Your task to perform on an android device: delete location history Image 0: 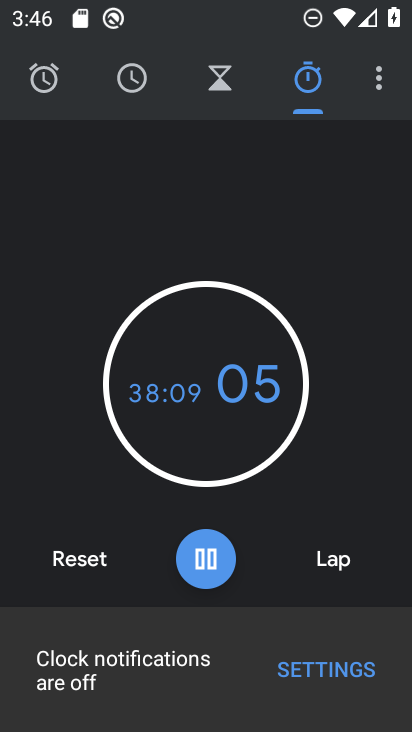
Step 0: press home button
Your task to perform on an android device: delete location history Image 1: 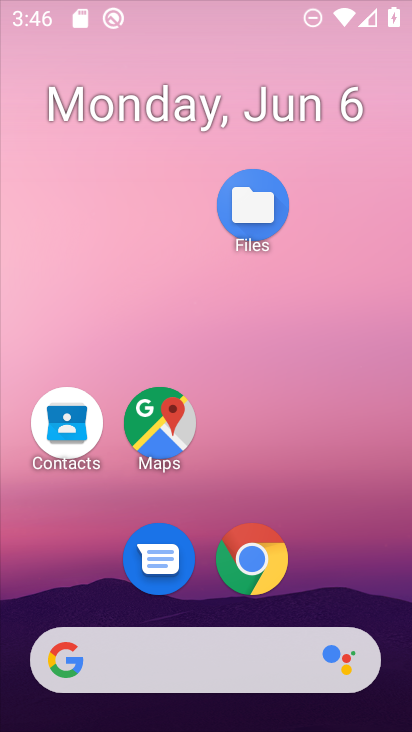
Step 1: drag from (299, 504) to (275, 43)
Your task to perform on an android device: delete location history Image 2: 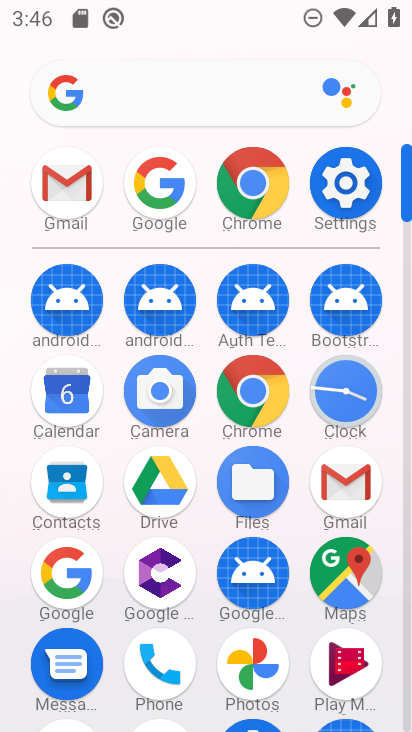
Step 2: click (362, 189)
Your task to perform on an android device: delete location history Image 3: 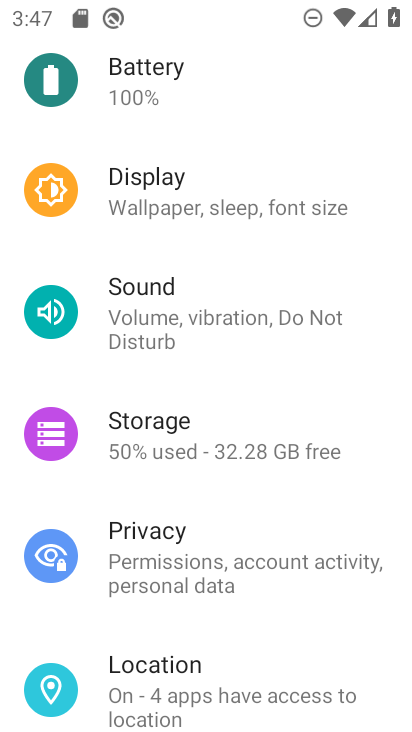
Step 3: click (217, 692)
Your task to perform on an android device: delete location history Image 4: 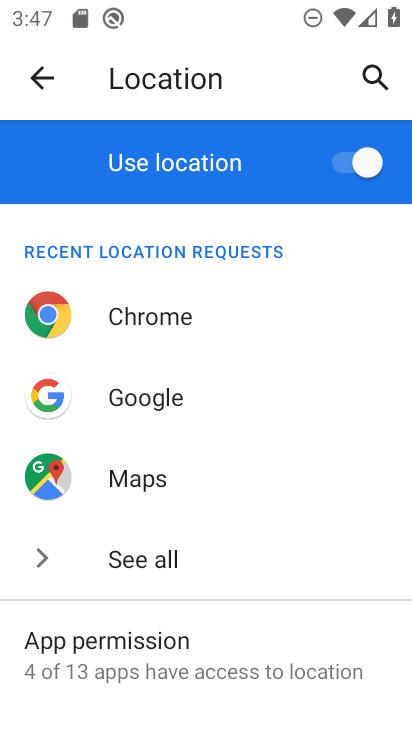
Step 4: drag from (123, 638) to (126, 157)
Your task to perform on an android device: delete location history Image 5: 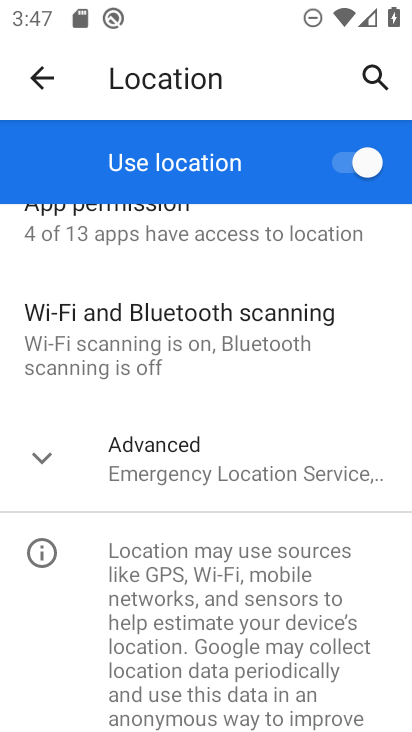
Step 5: click (203, 472)
Your task to perform on an android device: delete location history Image 6: 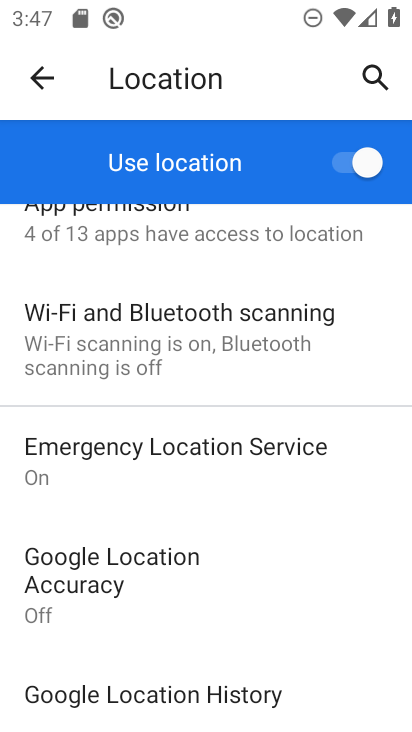
Step 6: click (191, 689)
Your task to perform on an android device: delete location history Image 7: 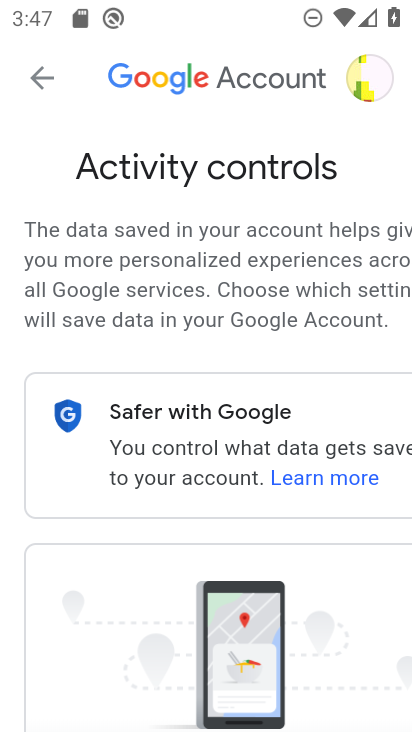
Step 7: drag from (243, 632) to (127, 304)
Your task to perform on an android device: delete location history Image 8: 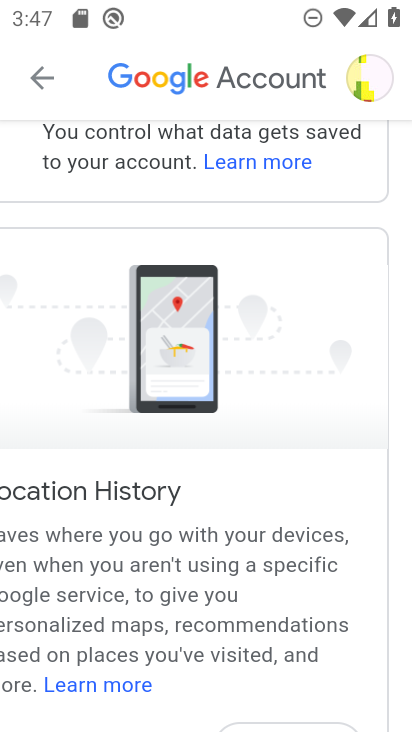
Step 8: drag from (267, 622) to (264, 254)
Your task to perform on an android device: delete location history Image 9: 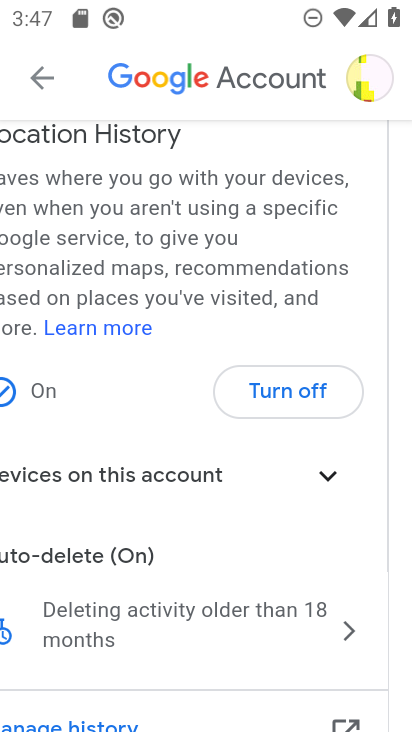
Step 9: click (159, 640)
Your task to perform on an android device: delete location history Image 10: 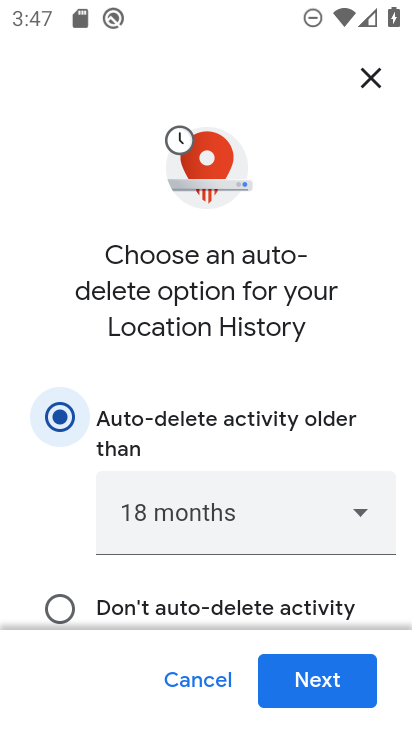
Step 10: click (325, 673)
Your task to perform on an android device: delete location history Image 11: 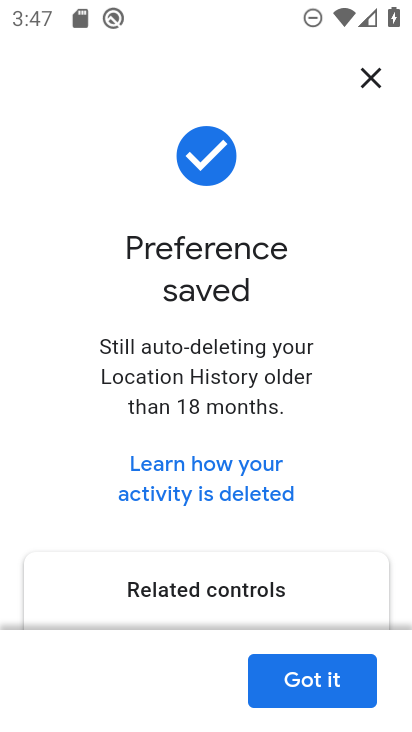
Step 11: click (323, 684)
Your task to perform on an android device: delete location history Image 12: 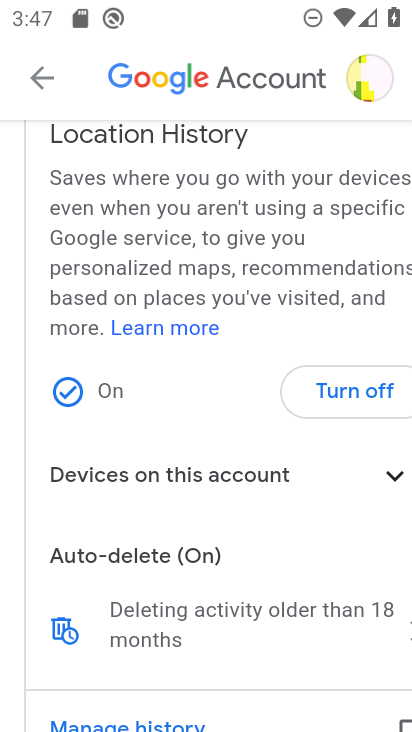
Step 12: task complete